Your task to perform on an android device: turn notification dots on Image 0: 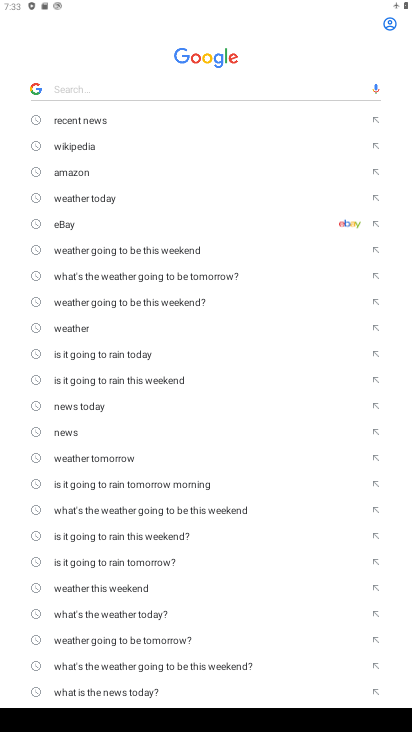
Step 0: press home button
Your task to perform on an android device: turn notification dots on Image 1: 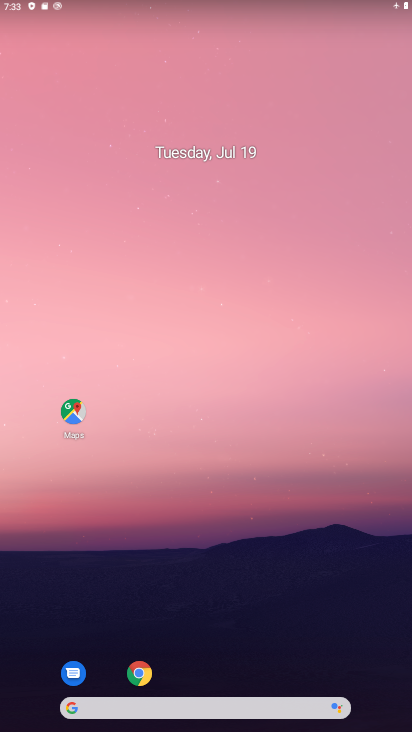
Step 1: drag from (220, 622) to (209, 7)
Your task to perform on an android device: turn notification dots on Image 2: 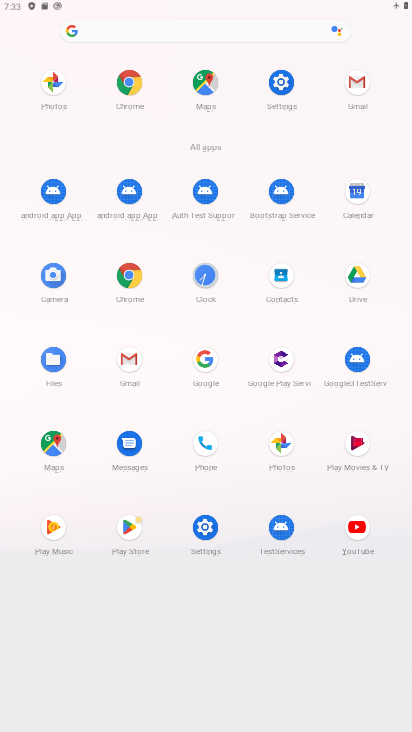
Step 2: click (275, 90)
Your task to perform on an android device: turn notification dots on Image 3: 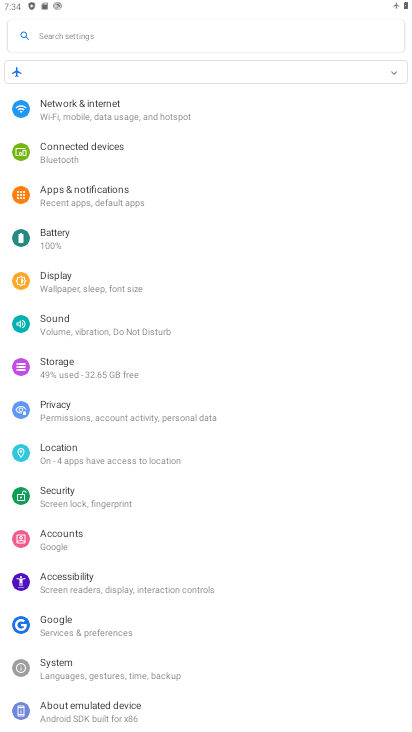
Step 3: click (123, 188)
Your task to perform on an android device: turn notification dots on Image 4: 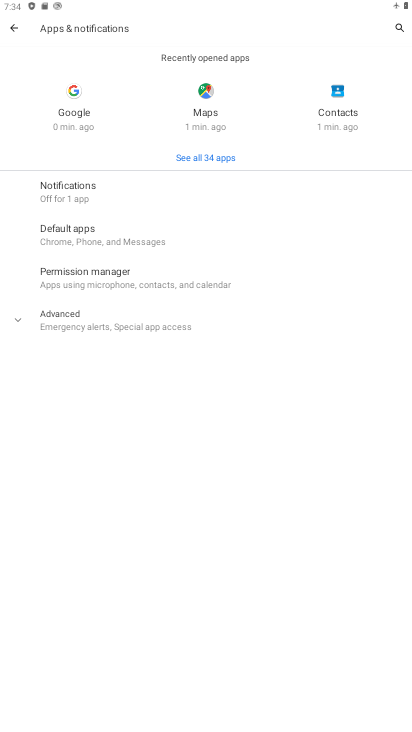
Step 4: click (72, 195)
Your task to perform on an android device: turn notification dots on Image 5: 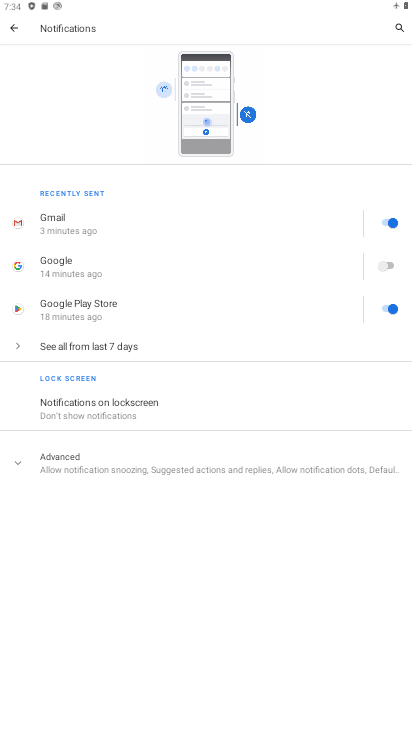
Step 5: click (73, 470)
Your task to perform on an android device: turn notification dots on Image 6: 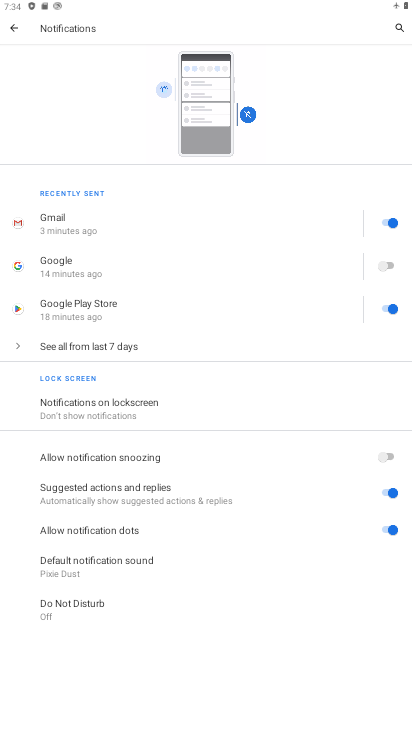
Step 6: task complete